Your task to perform on an android device: Open Google Chrome Image 0: 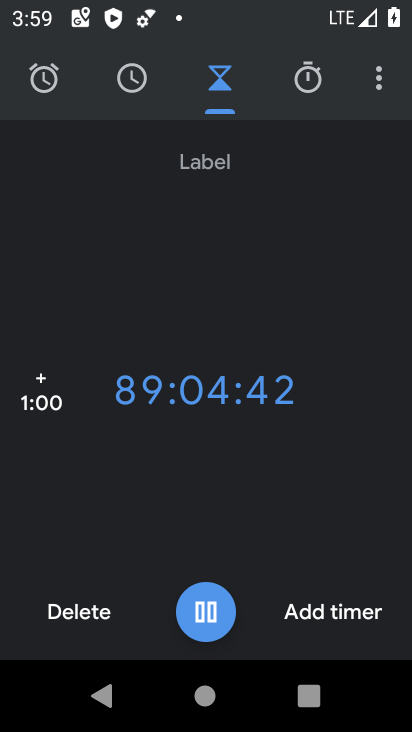
Step 0: press home button
Your task to perform on an android device: Open Google Chrome Image 1: 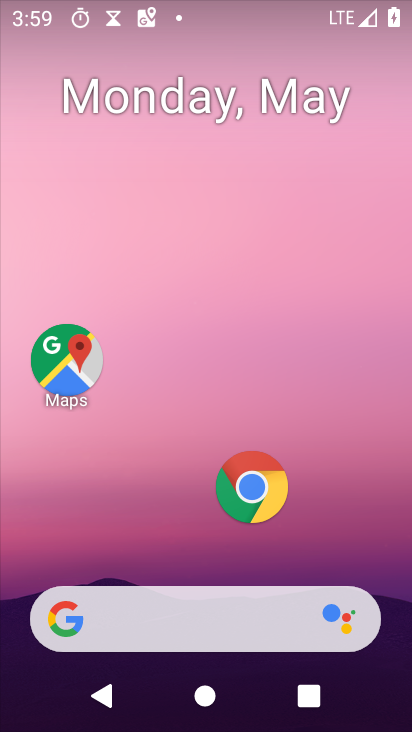
Step 1: click (262, 490)
Your task to perform on an android device: Open Google Chrome Image 2: 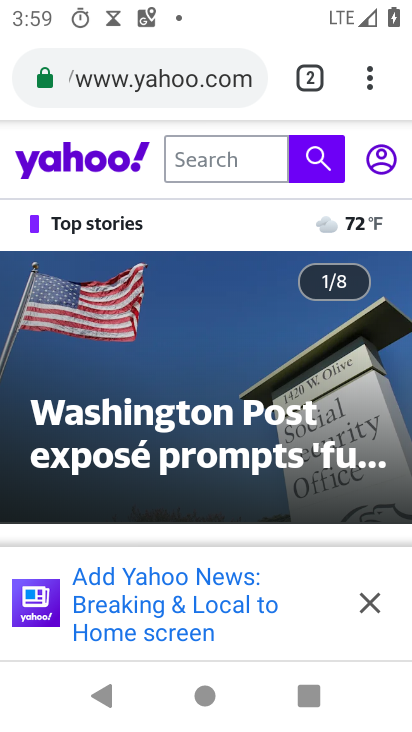
Step 2: task complete